Your task to perform on an android device: Go to privacy settings Image 0: 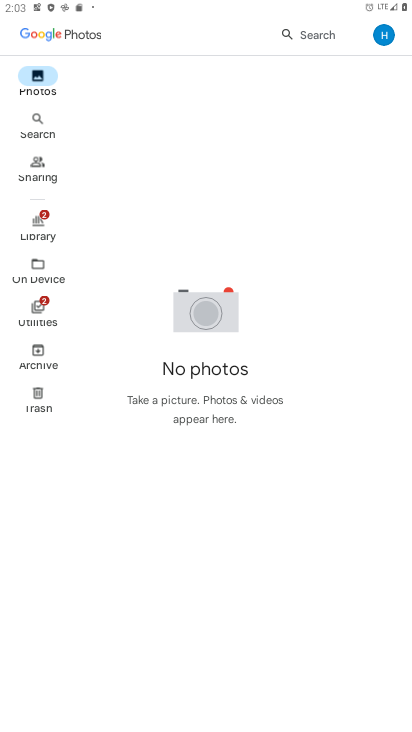
Step 0: press home button
Your task to perform on an android device: Go to privacy settings Image 1: 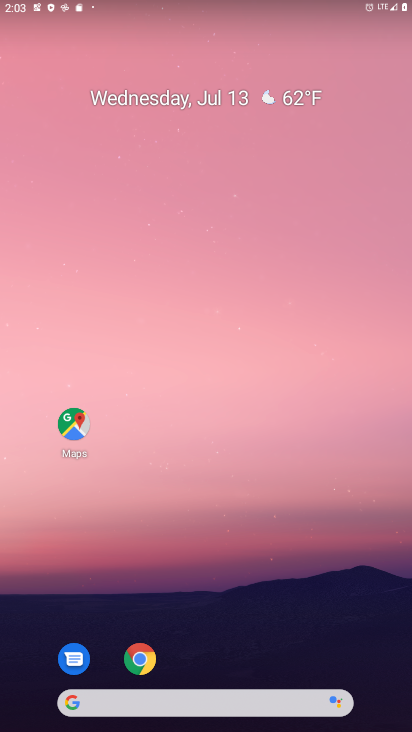
Step 1: drag from (217, 706) to (220, 125)
Your task to perform on an android device: Go to privacy settings Image 2: 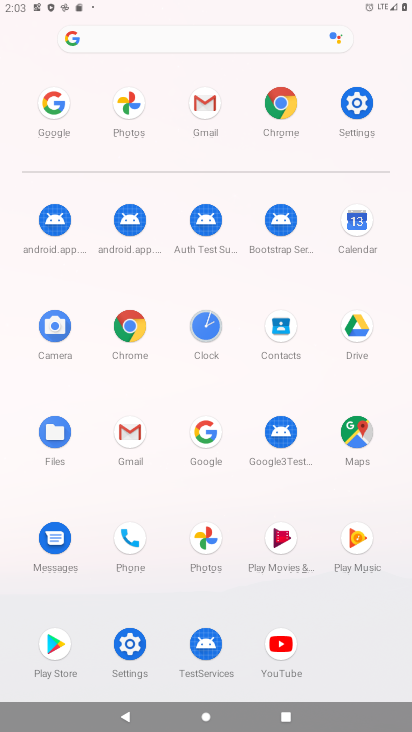
Step 2: click (347, 106)
Your task to perform on an android device: Go to privacy settings Image 3: 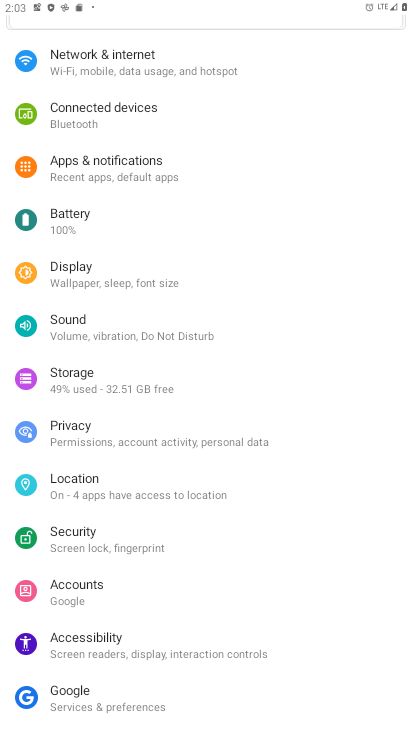
Step 3: click (75, 425)
Your task to perform on an android device: Go to privacy settings Image 4: 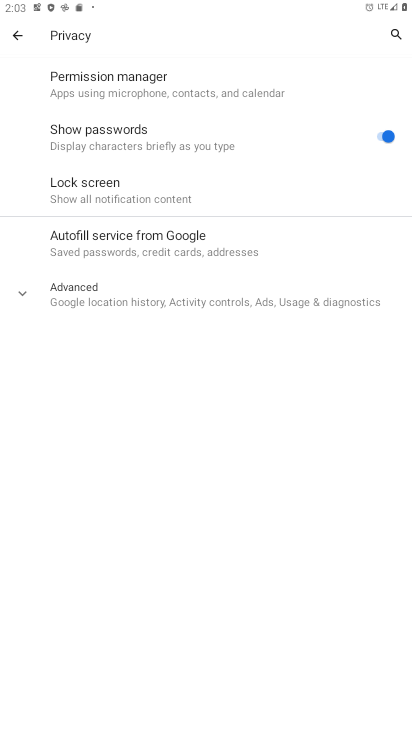
Step 4: task complete